Your task to perform on an android device: Search for Italian restaurants on Maps Image 0: 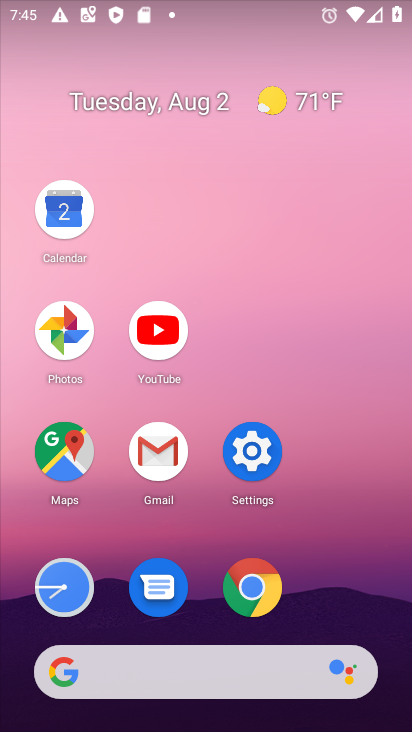
Step 0: click (60, 462)
Your task to perform on an android device: Search for Italian restaurants on Maps Image 1: 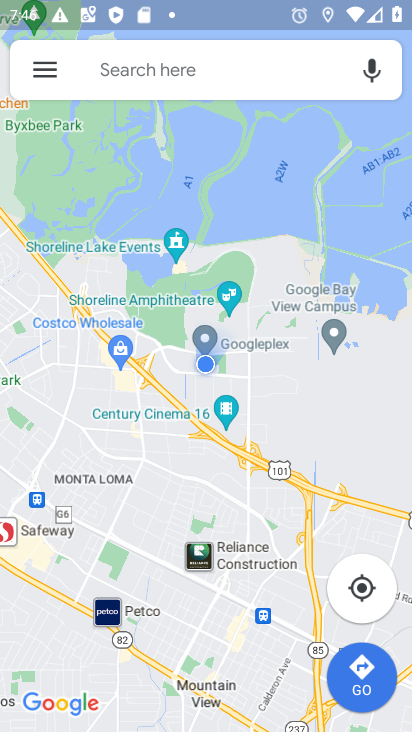
Step 1: click (142, 70)
Your task to perform on an android device: Search for Italian restaurants on Maps Image 2: 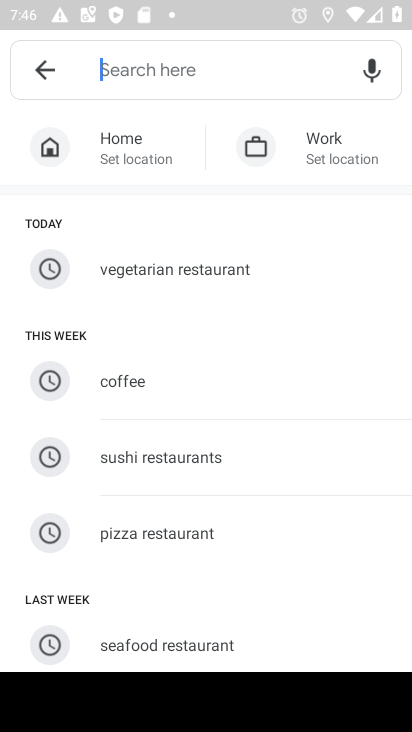
Step 2: type "italian"
Your task to perform on an android device: Search for Italian restaurants on Maps Image 3: 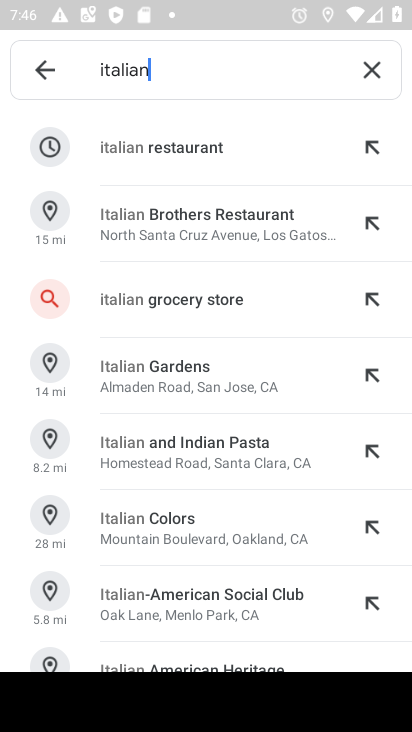
Step 3: click (167, 141)
Your task to perform on an android device: Search for Italian restaurants on Maps Image 4: 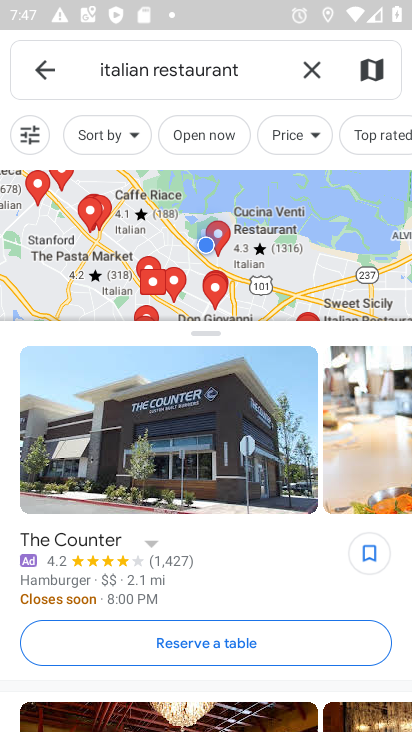
Step 4: task complete